Your task to perform on an android device: Go to sound settings Image 0: 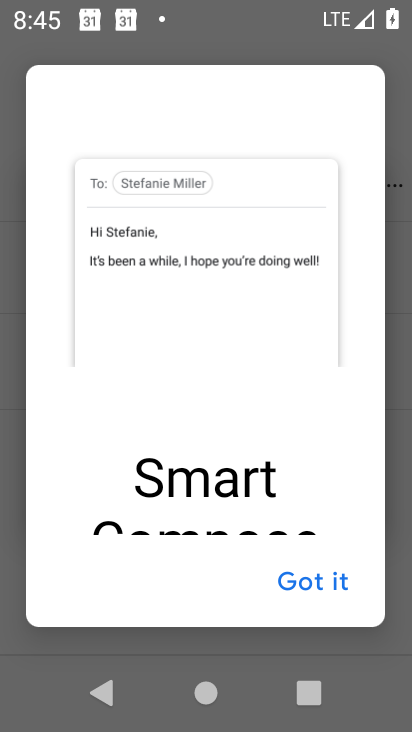
Step 0: press home button
Your task to perform on an android device: Go to sound settings Image 1: 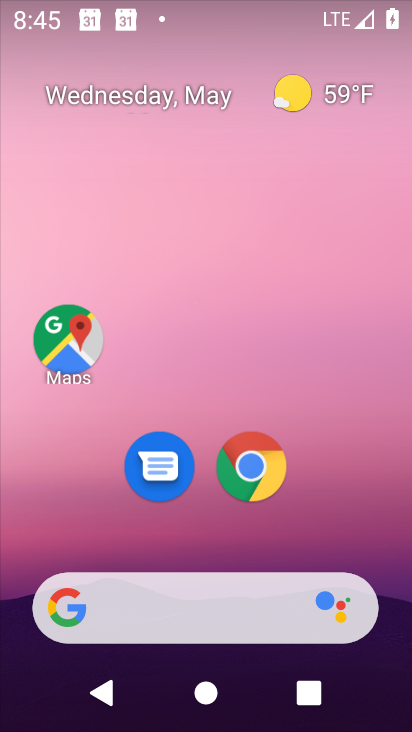
Step 1: drag from (337, 503) to (340, 236)
Your task to perform on an android device: Go to sound settings Image 2: 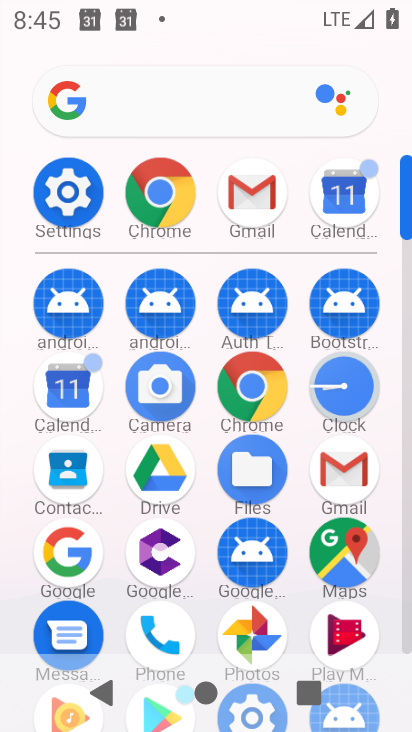
Step 2: click (61, 183)
Your task to perform on an android device: Go to sound settings Image 3: 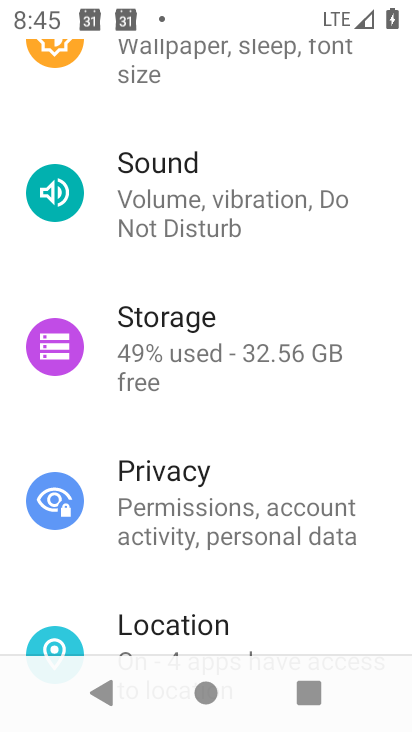
Step 3: click (206, 195)
Your task to perform on an android device: Go to sound settings Image 4: 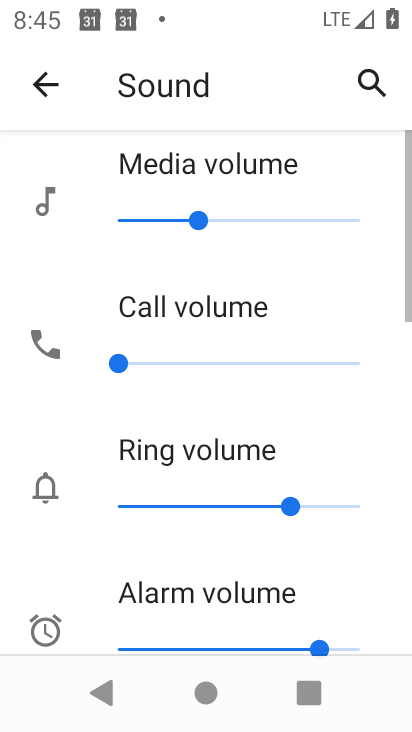
Step 4: task complete